Your task to perform on an android device: Search for pizza restaurants on Maps Image 0: 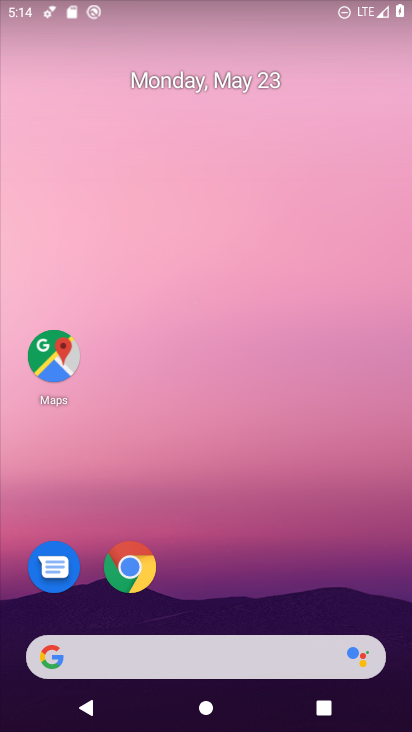
Step 0: click (52, 358)
Your task to perform on an android device: Search for pizza restaurants on Maps Image 1: 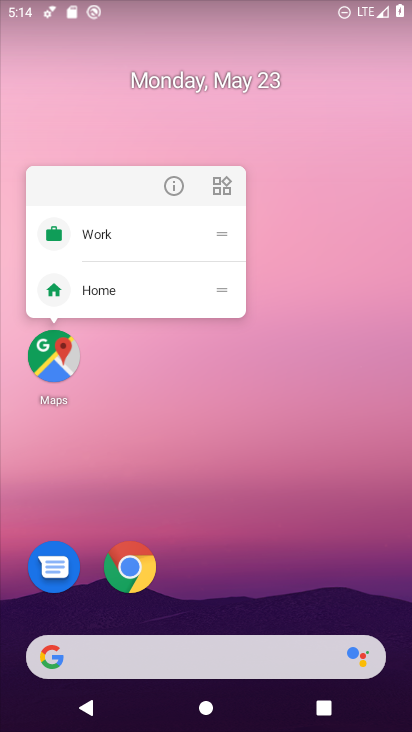
Step 1: click (58, 355)
Your task to perform on an android device: Search for pizza restaurants on Maps Image 2: 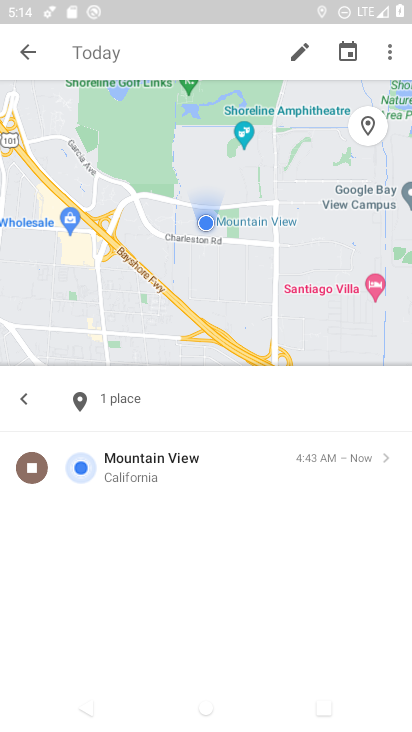
Step 2: click (124, 49)
Your task to perform on an android device: Search for pizza restaurants on Maps Image 3: 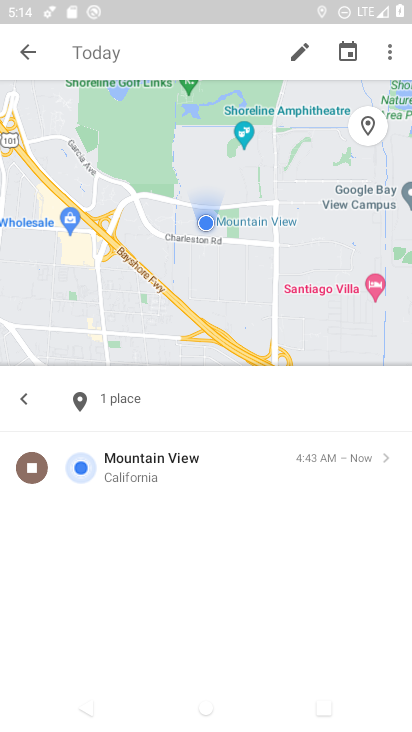
Step 3: click (17, 47)
Your task to perform on an android device: Search for pizza restaurants on Maps Image 4: 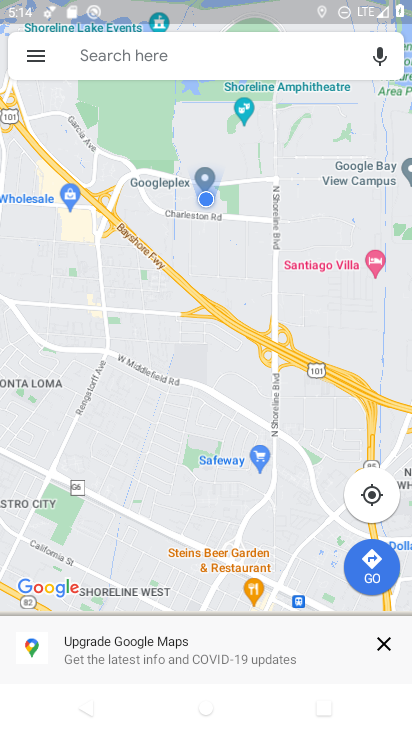
Step 4: click (138, 62)
Your task to perform on an android device: Search for pizza restaurants on Maps Image 5: 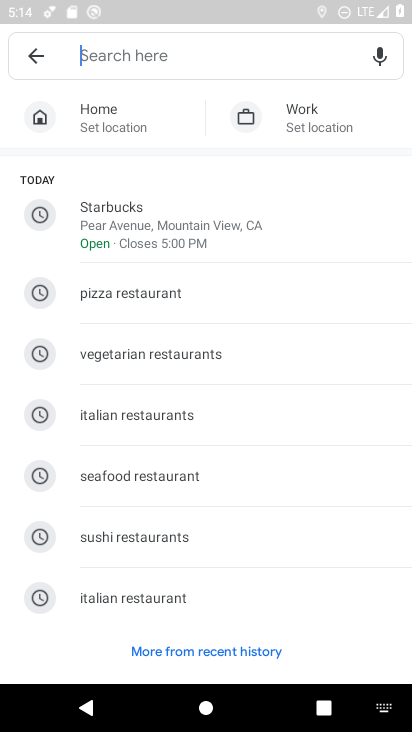
Step 5: type "pizza restaurants"
Your task to perform on an android device: Search for pizza restaurants on Maps Image 6: 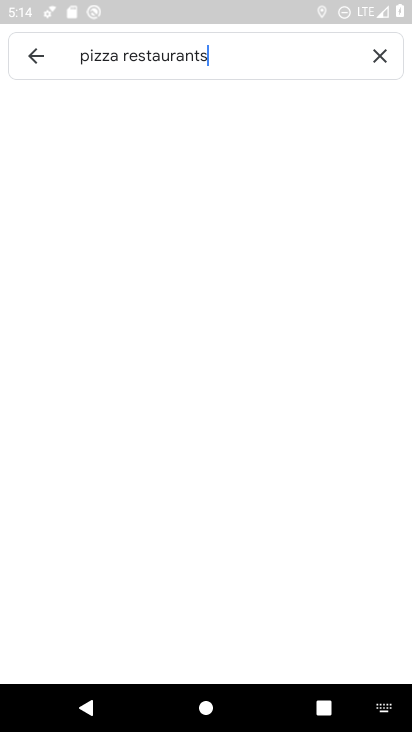
Step 6: type ""
Your task to perform on an android device: Search for pizza restaurants on Maps Image 7: 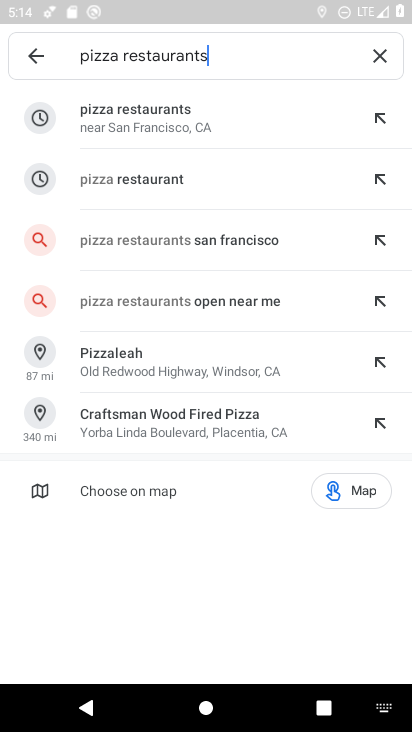
Step 7: click (168, 112)
Your task to perform on an android device: Search for pizza restaurants on Maps Image 8: 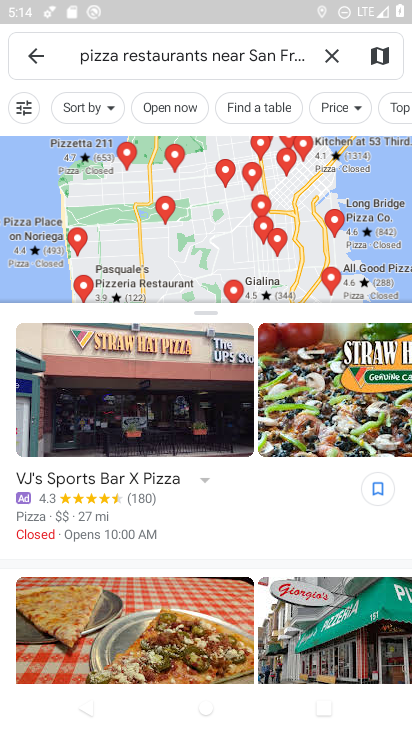
Step 8: task complete